Your task to perform on an android device: Open the stopwatch Image 0: 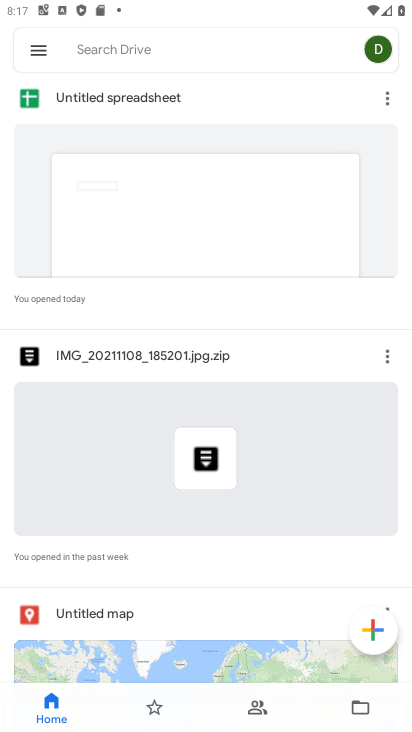
Step 0: press home button
Your task to perform on an android device: Open the stopwatch Image 1: 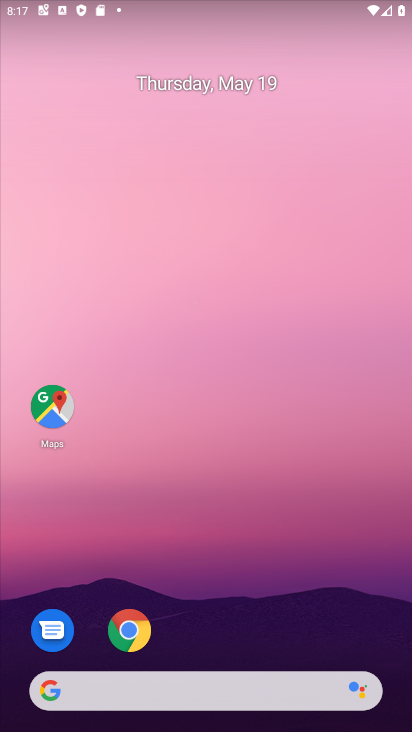
Step 1: drag from (375, 649) to (334, 69)
Your task to perform on an android device: Open the stopwatch Image 2: 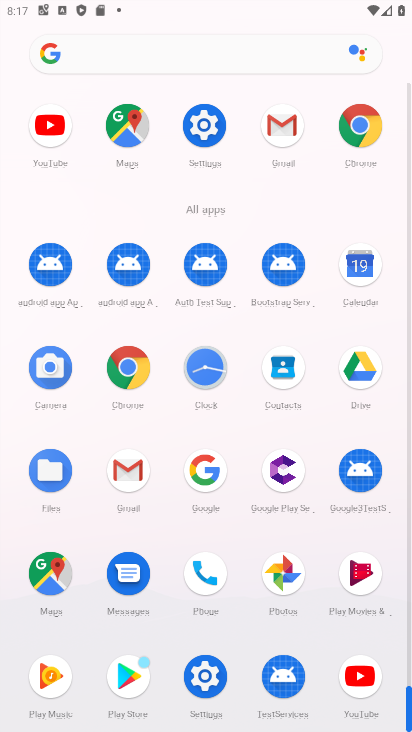
Step 2: click (201, 364)
Your task to perform on an android device: Open the stopwatch Image 3: 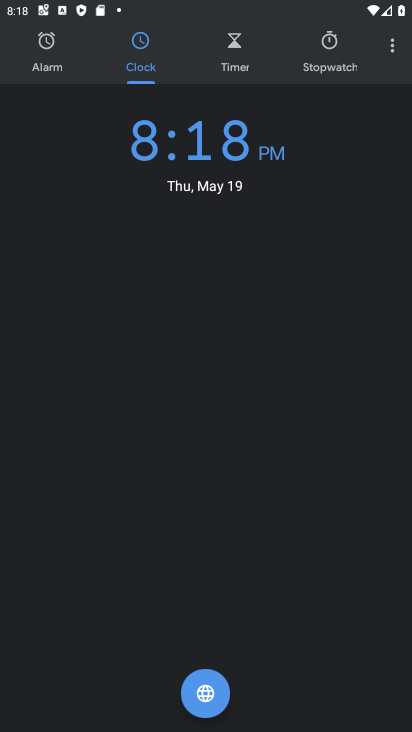
Step 3: click (328, 49)
Your task to perform on an android device: Open the stopwatch Image 4: 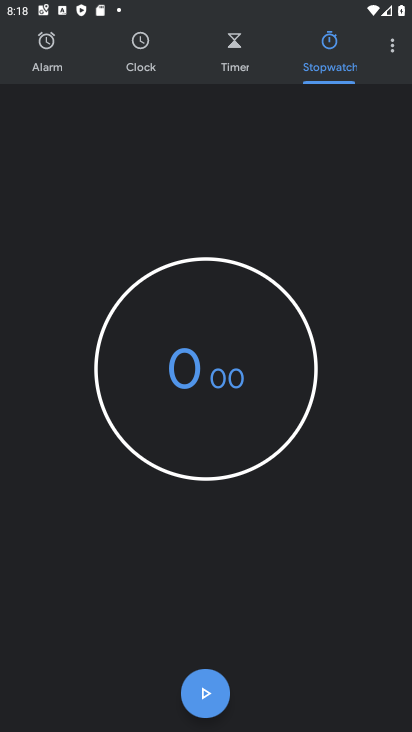
Step 4: task complete